Your task to perform on an android device: turn on bluetooth scan Image 0: 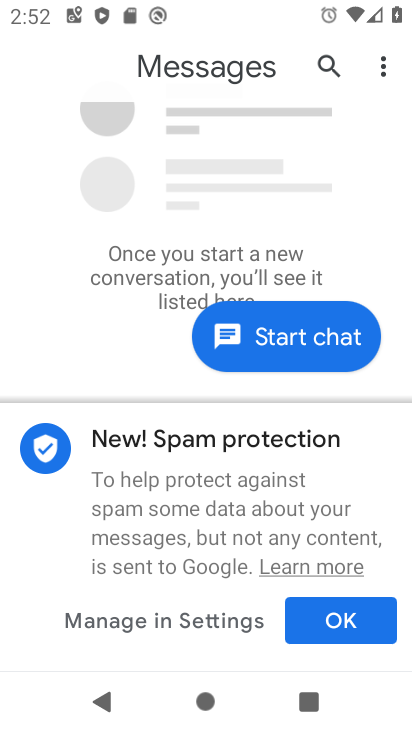
Step 0: press home button
Your task to perform on an android device: turn on bluetooth scan Image 1: 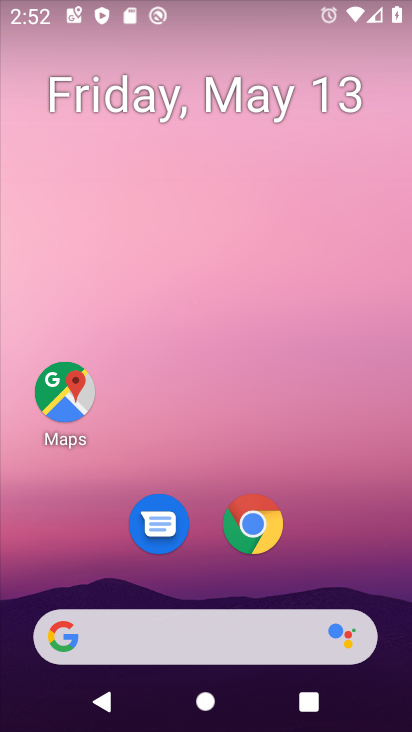
Step 1: drag from (203, 573) to (280, 51)
Your task to perform on an android device: turn on bluetooth scan Image 2: 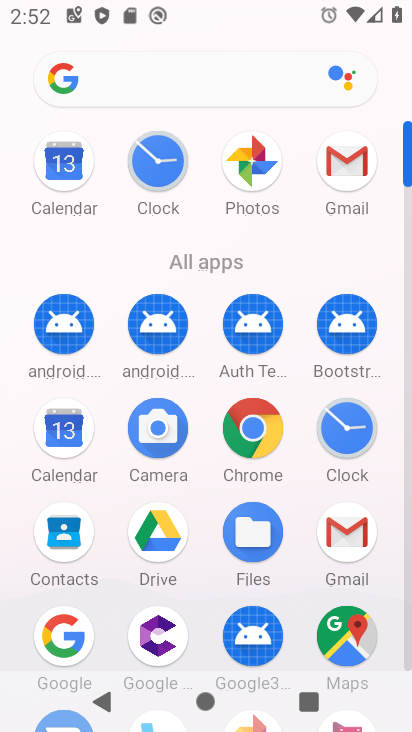
Step 2: drag from (198, 511) to (244, 113)
Your task to perform on an android device: turn on bluetooth scan Image 3: 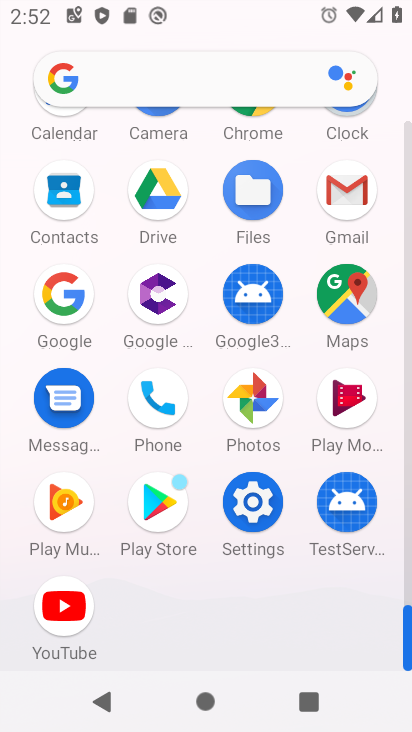
Step 3: click (257, 508)
Your task to perform on an android device: turn on bluetooth scan Image 4: 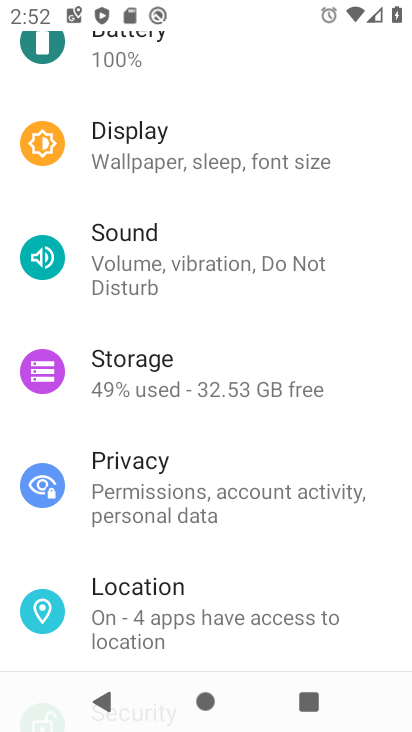
Step 4: drag from (246, 564) to (289, 142)
Your task to perform on an android device: turn on bluetooth scan Image 5: 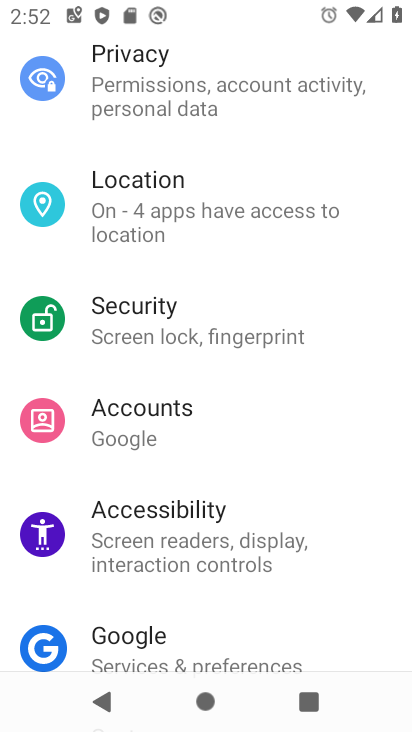
Step 5: drag from (203, 524) to (228, 142)
Your task to perform on an android device: turn on bluetooth scan Image 6: 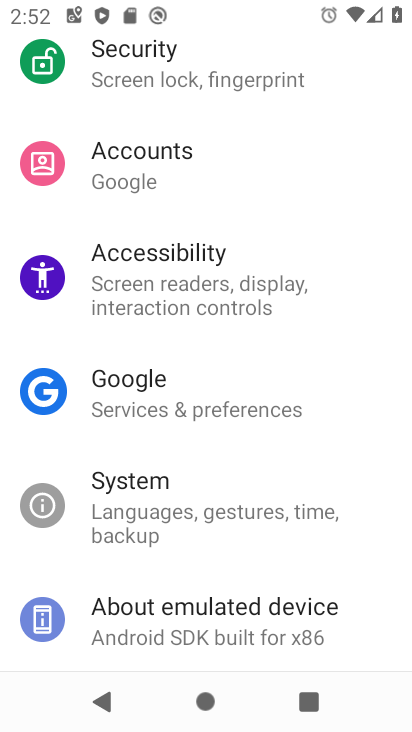
Step 6: drag from (223, 167) to (193, 626)
Your task to perform on an android device: turn on bluetooth scan Image 7: 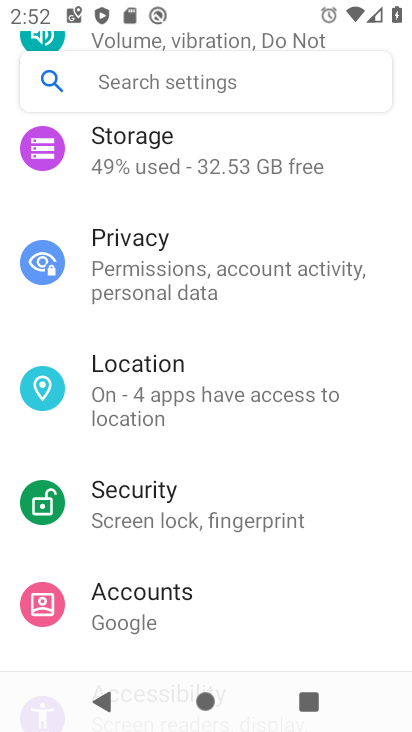
Step 7: click (272, 385)
Your task to perform on an android device: turn on bluetooth scan Image 8: 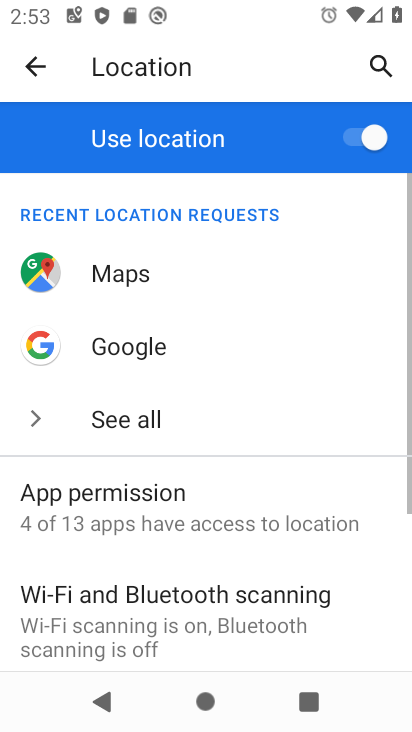
Step 8: click (214, 609)
Your task to perform on an android device: turn on bluetooth scan Image 9: 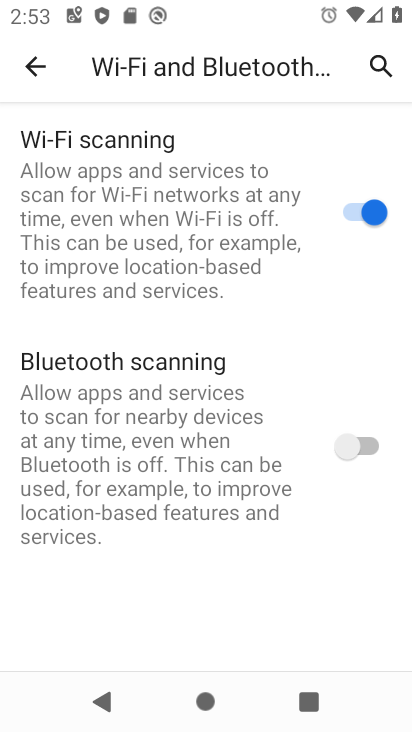
Step 9: click (371, 446)
Your task to perform on an android device: turn on bluetooth scan Image 10: 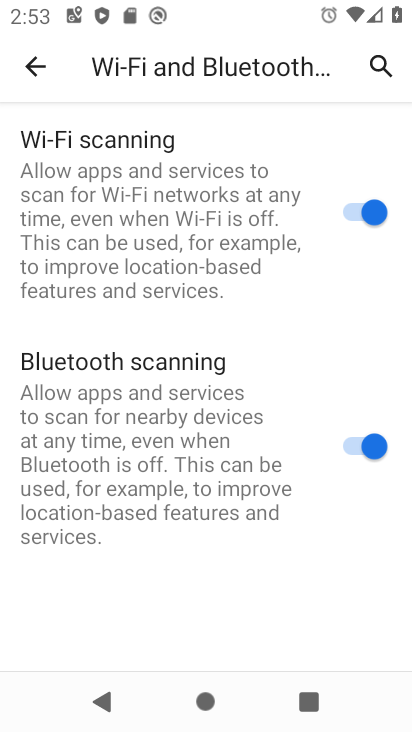
Step 10: task complete